Your task to perform on an android device: find which apps use the phone's location Image 0: 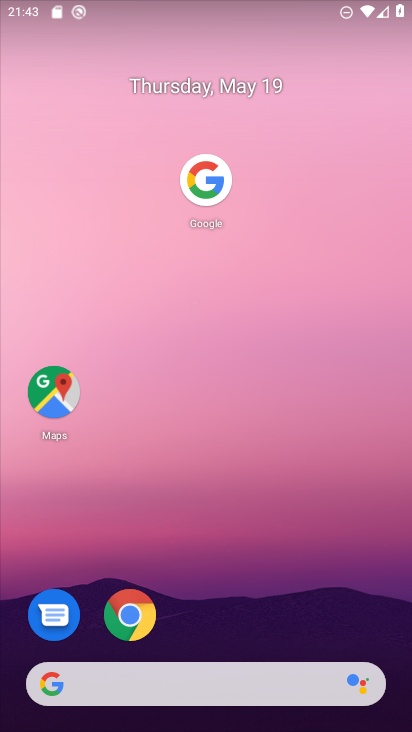
Step 0: drag from (248, 559) to (311, 58)
Your task to perform on an android device: find which apps use the phone's location Image 1: 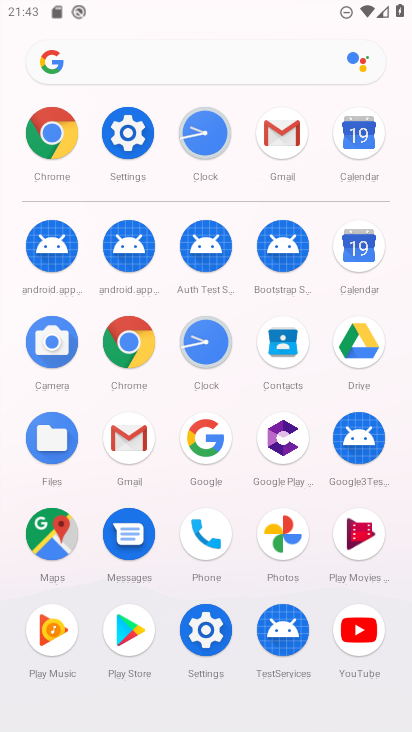
Step 1: click (116, 132)
Your task to perform on an android device: find which apps use the phone's location Image 2: 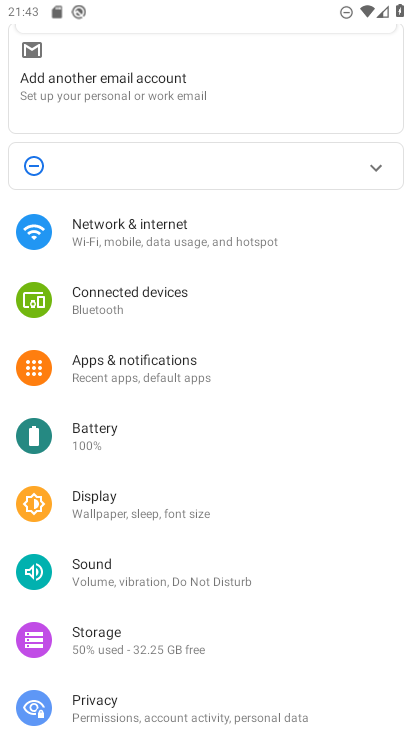
Step 2: drag from (168, 578) to (186, 242)
Your task to perform on an android device: find which apps use the phone's location Image 3: 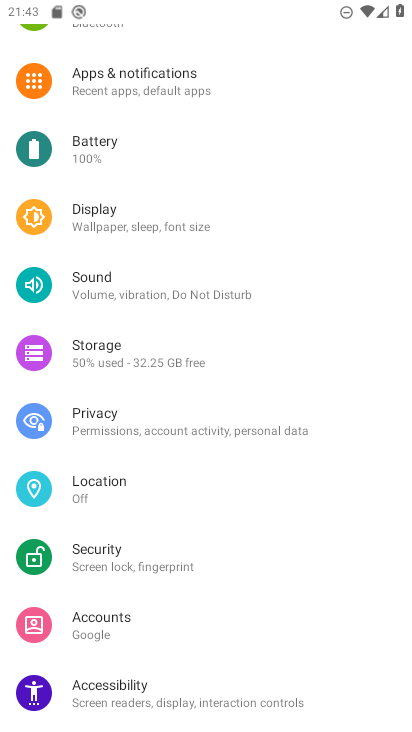
Step 3: click (61, 479)
Your task to perform on an android device: find which apps use the phone's location Image 4: 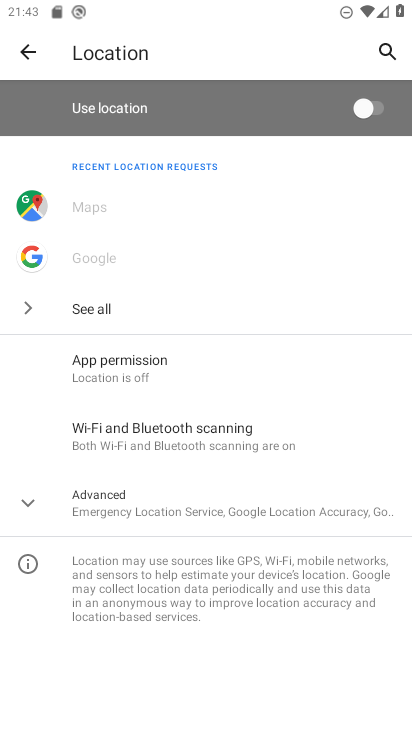
Step 4: click (161, 365)
Your task to perform on an android device: find which apps use the phone's location Image 5: 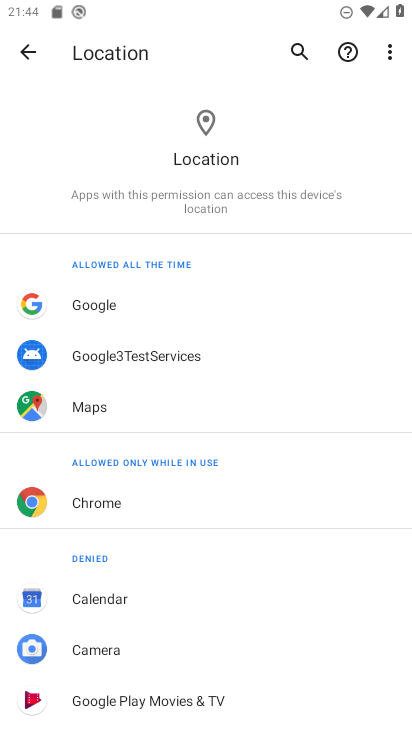
Step 5: task complete